Your task to perform on an android device: turn off wifi Image 0: 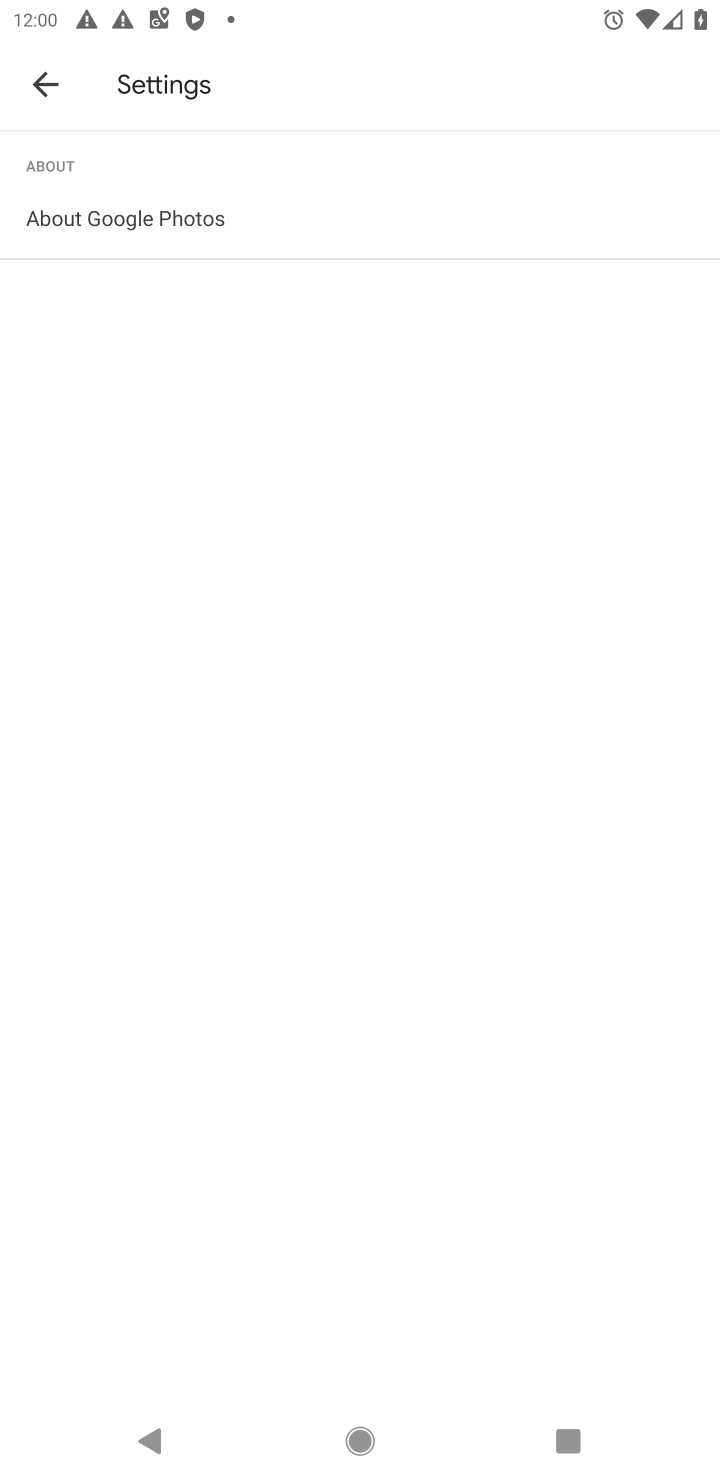
Step 0: press home button
Your task to perform on an android device: turn off wifi Image 1: 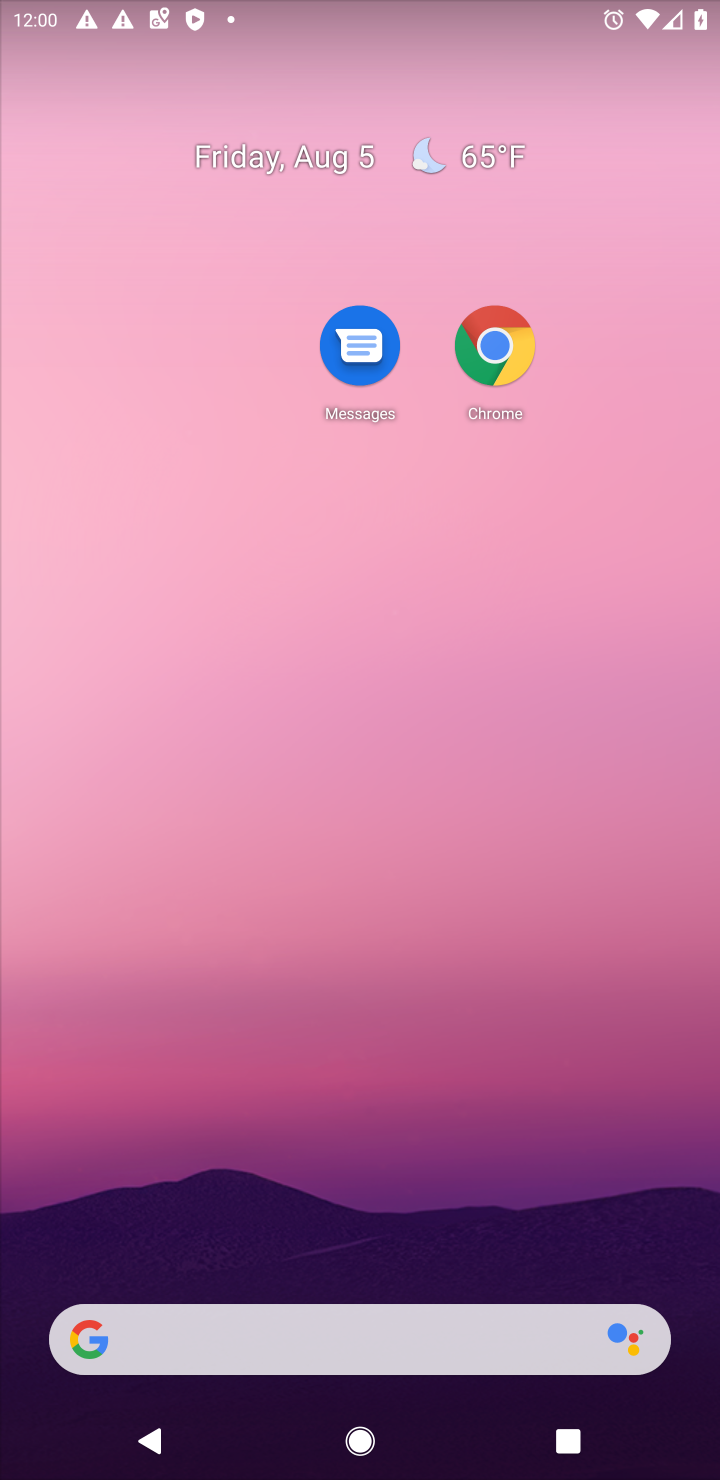
Step 1: drag from (396, 1176) to (457, 20)
Your task to perform on an android device: turn off wifi Image 2: 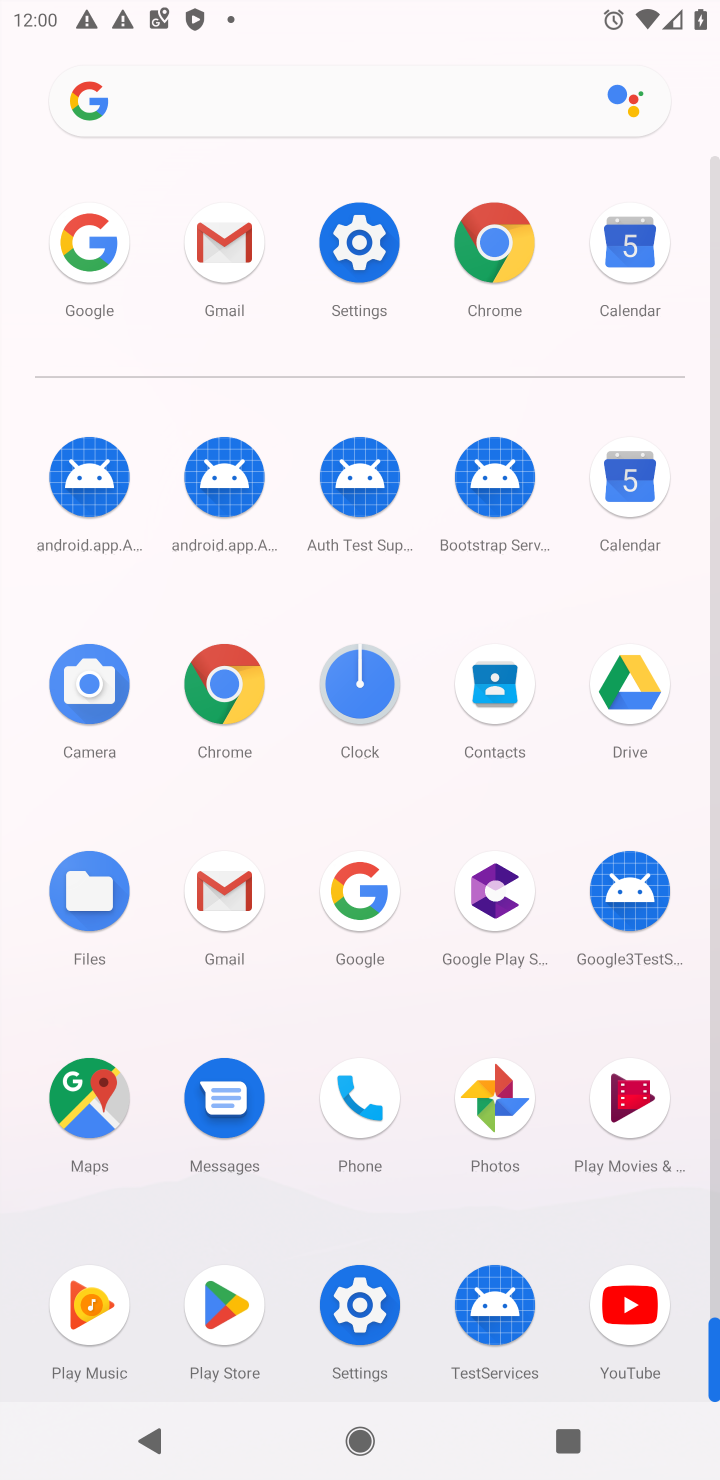
Step 2: click (349, 245)
Your task to perform on an android device: turn off wifi Image 3: 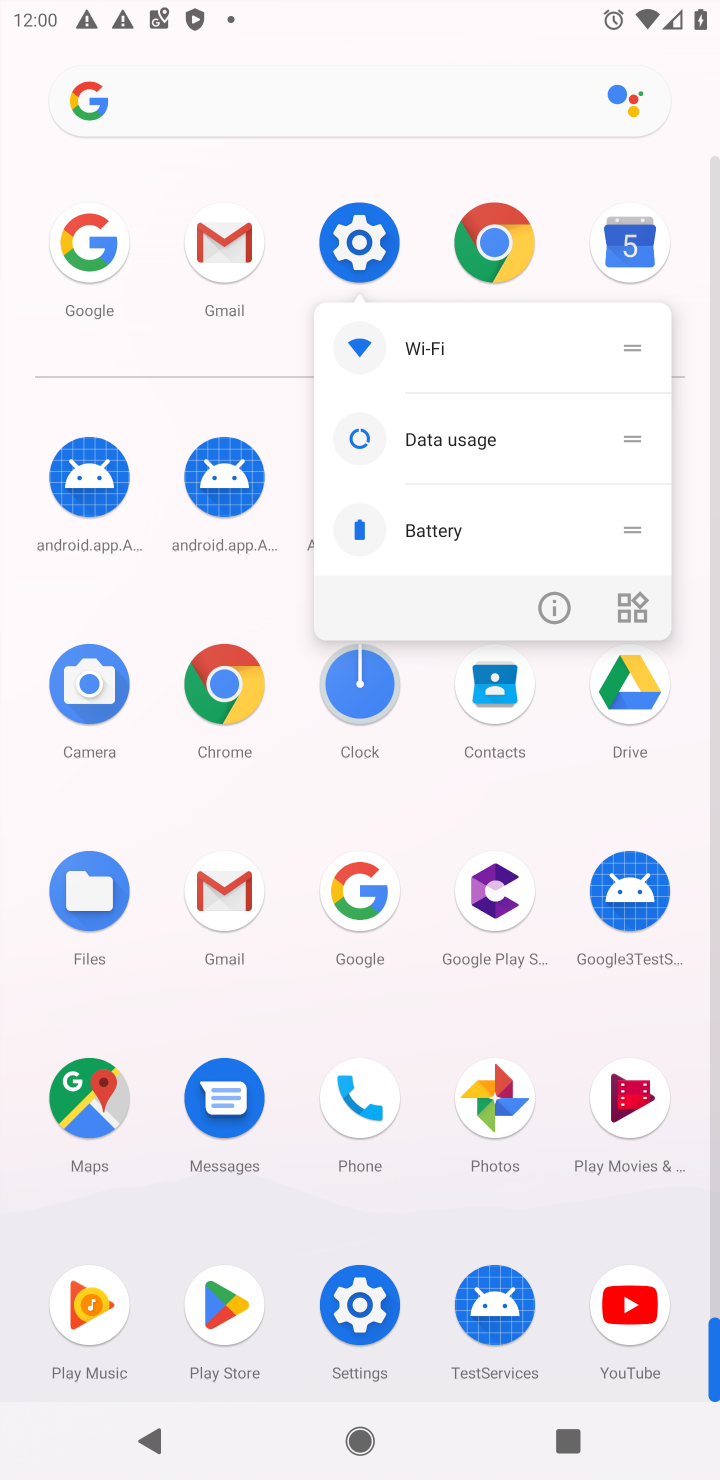
Step 3: click (351, 245)
Your task to perform on an android device: turn off wifi Image 4: 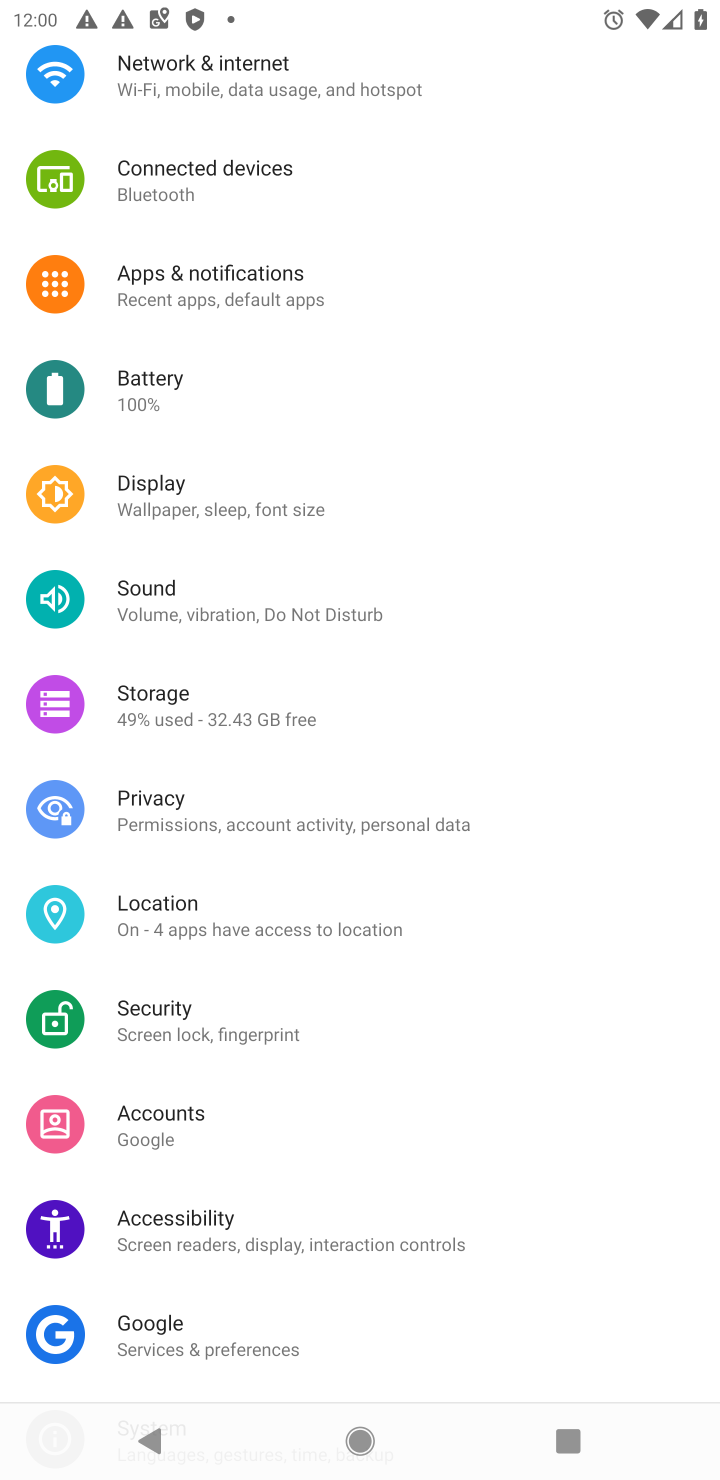
Step 4: drag from (363, 284) to (338, 1051)
Your task to perform on an android device: turn off wifi Image 5: 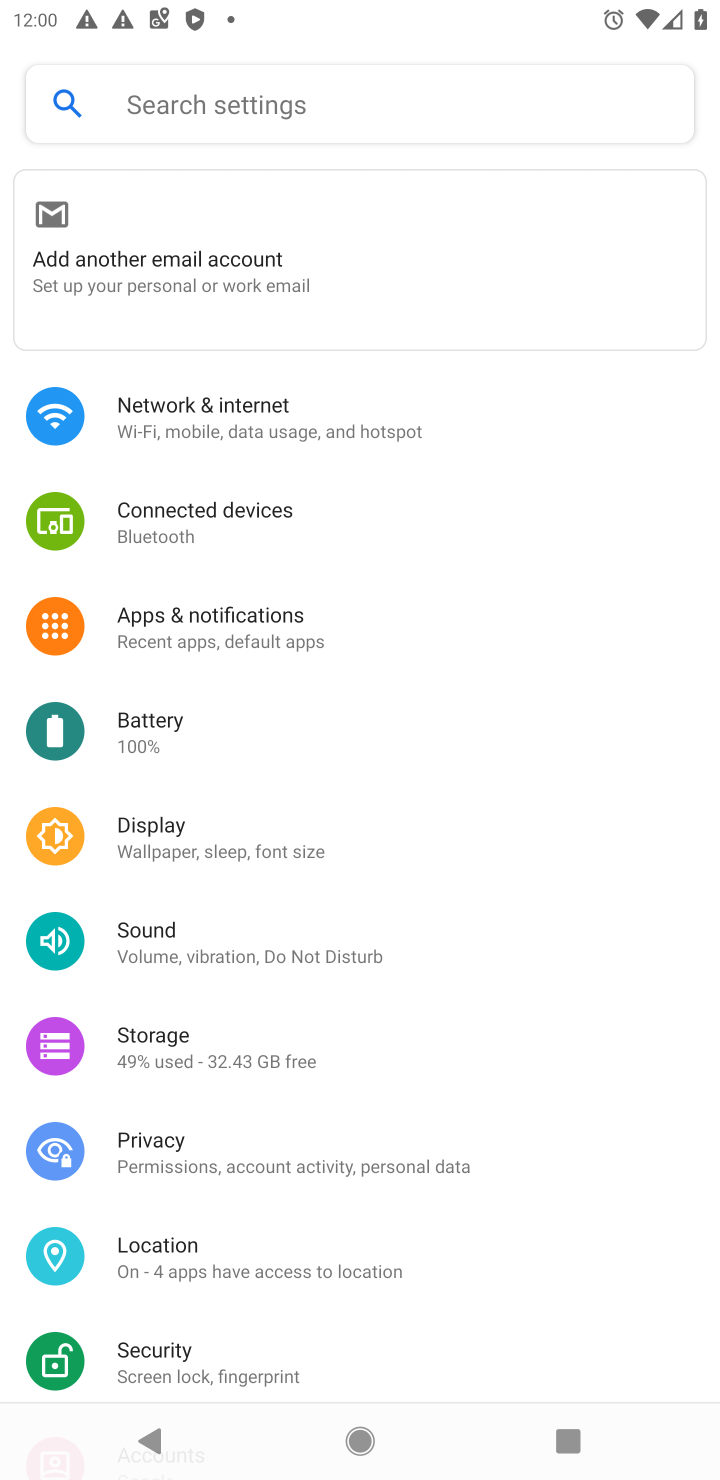
Step 5: click (200, 427)
Your task to perform on an android device: turn off wifi Image 6: 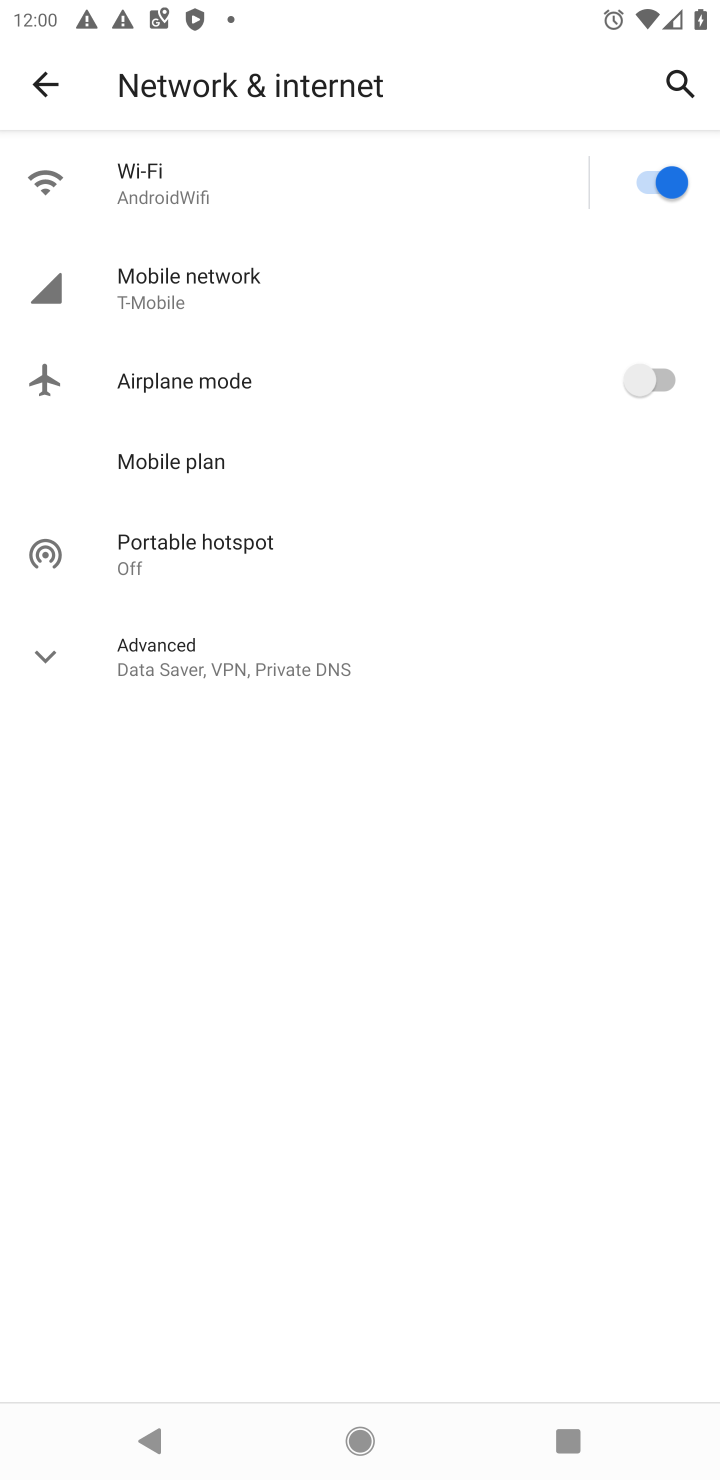
Step 6: click (175, 198)
Your task to perform on an android device: turn off wifi Image 7: 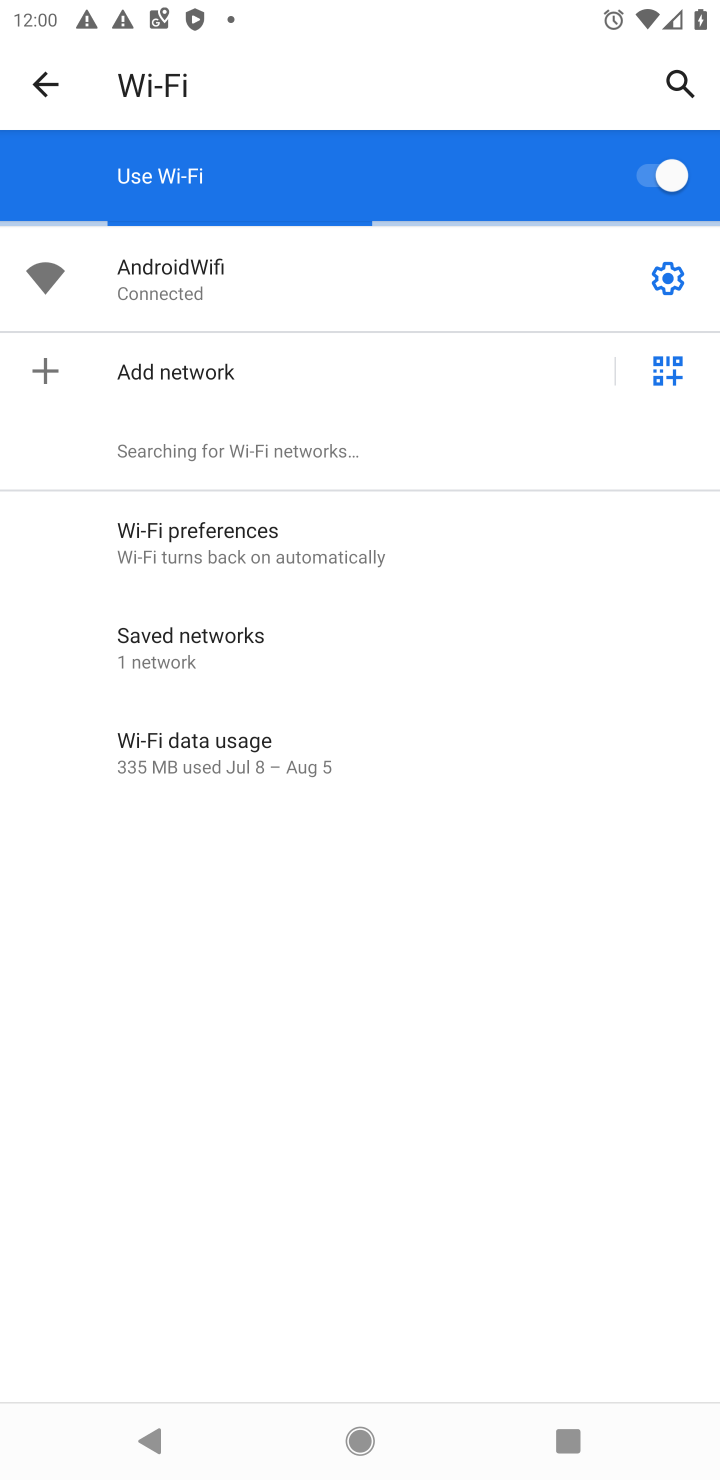
Step 7: click (657, 176)
Your task to perform on an android device: turn off wifi Image 8: 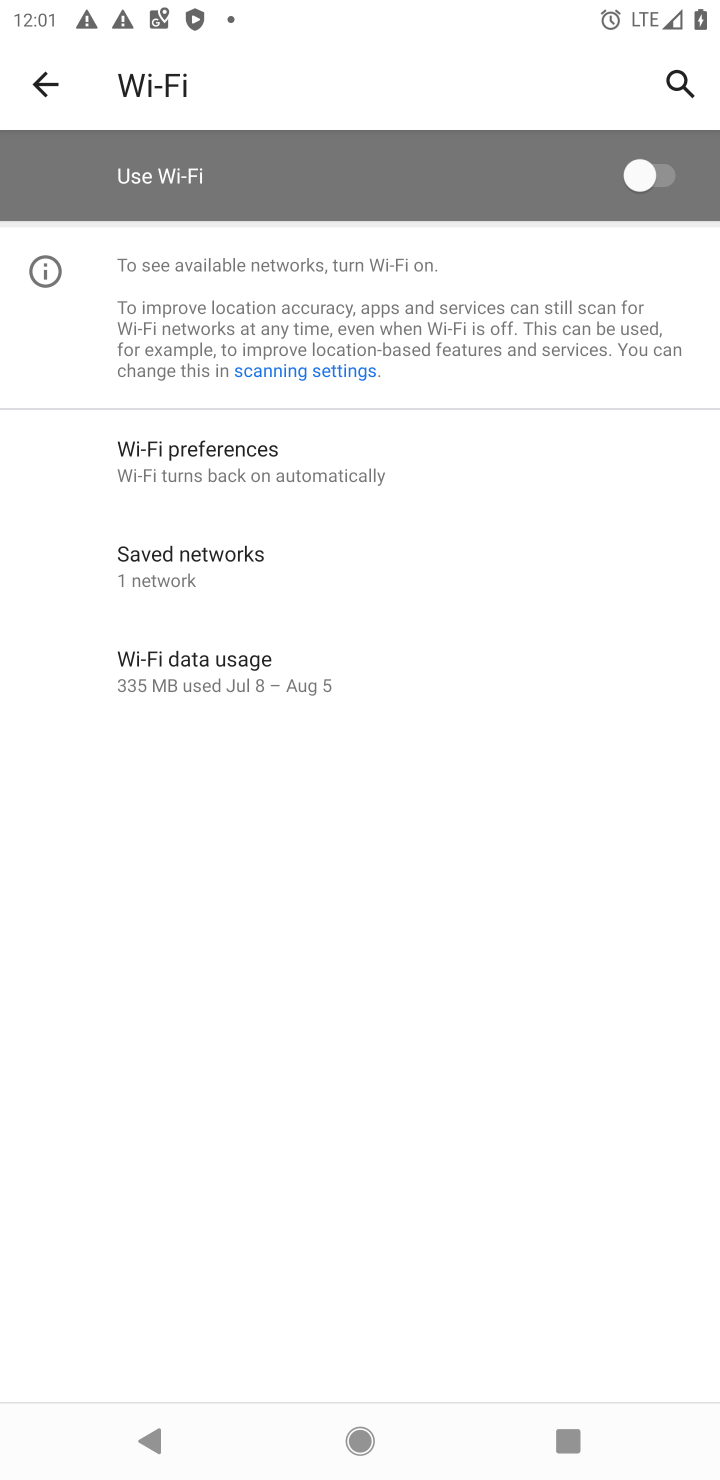
Step 8: task complete